Your task to perform on an android device: turn notification dots on Image 0: 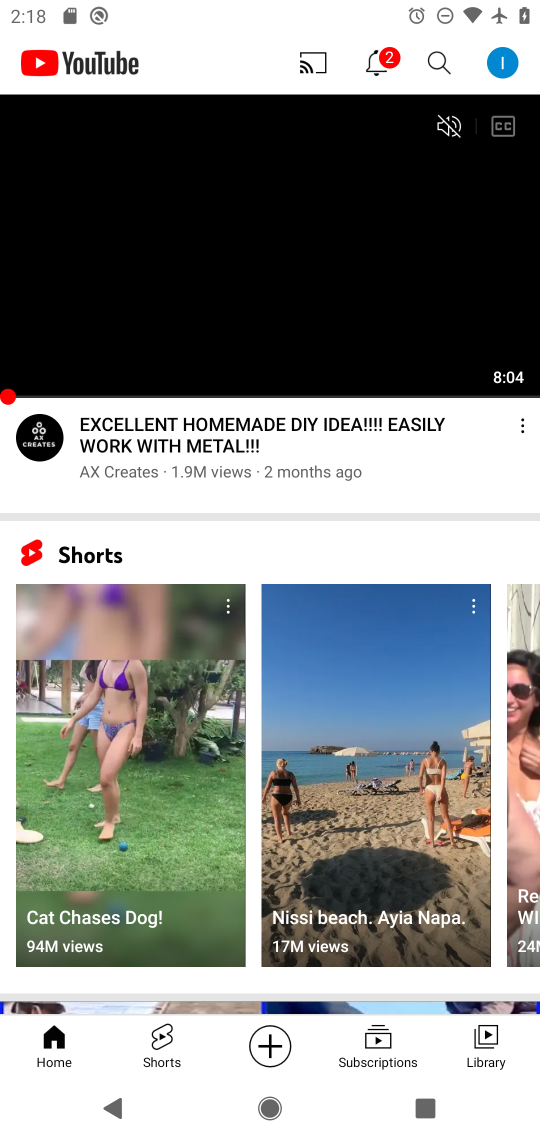
Step 0: press home button
Your task to perform on an android device: turn notification dots on Image 1: 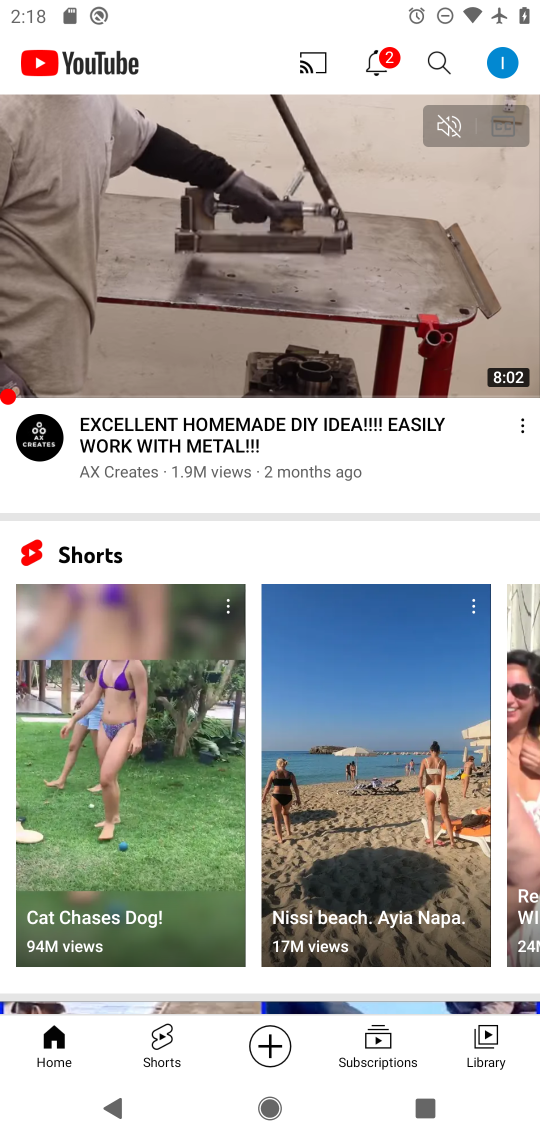
Step 1: press home button
Your task to perform on an android device: turn notification dots on Image 2: 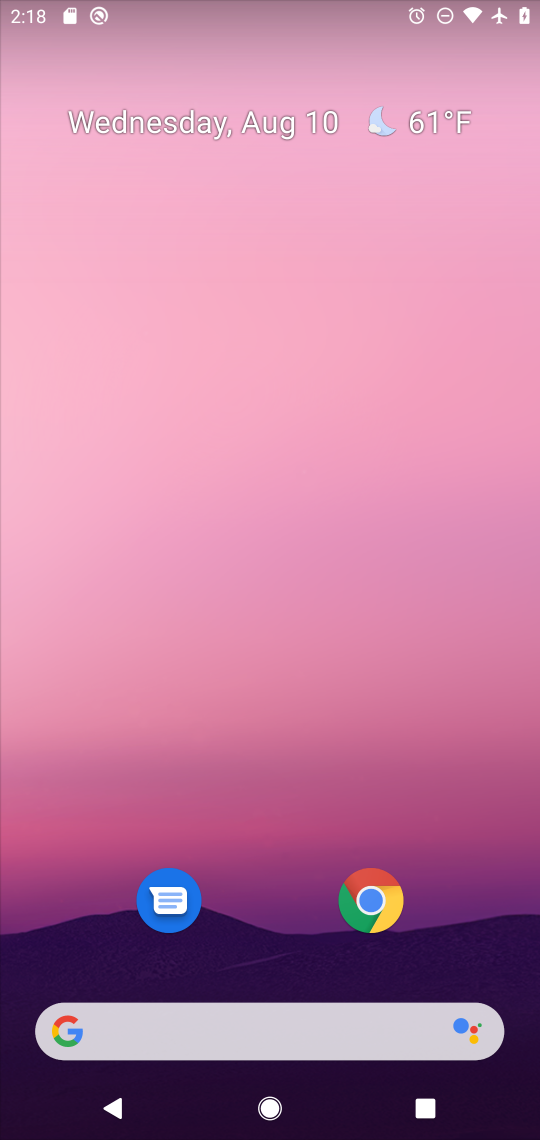
Step 2: drag from (277, 911) to (373, 1)
Your task to perform on an android device: turn notification dots on Image 3: 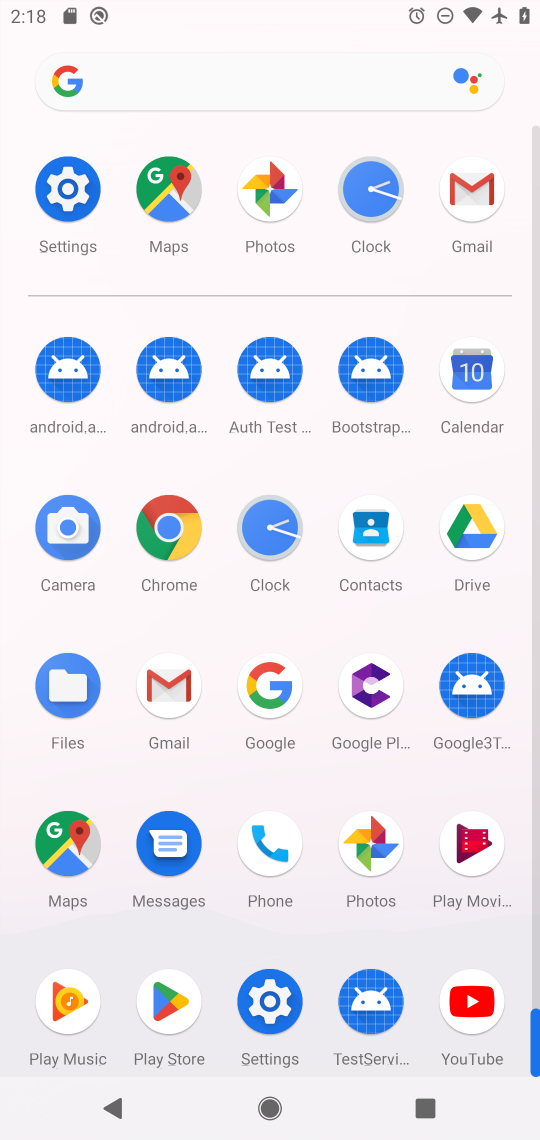
Step 3: click (69, 189)
Your task to perform on an android device: turn notification dots on Image 4: 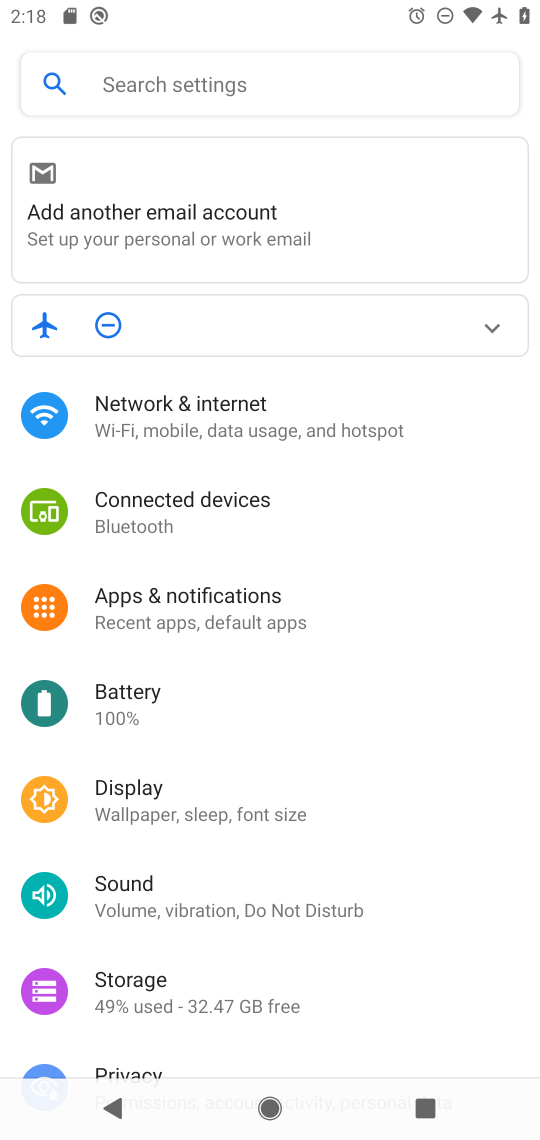
Step 4: click (200, 593)
Your task to perform on an android device: turn notification dots on Image 5: 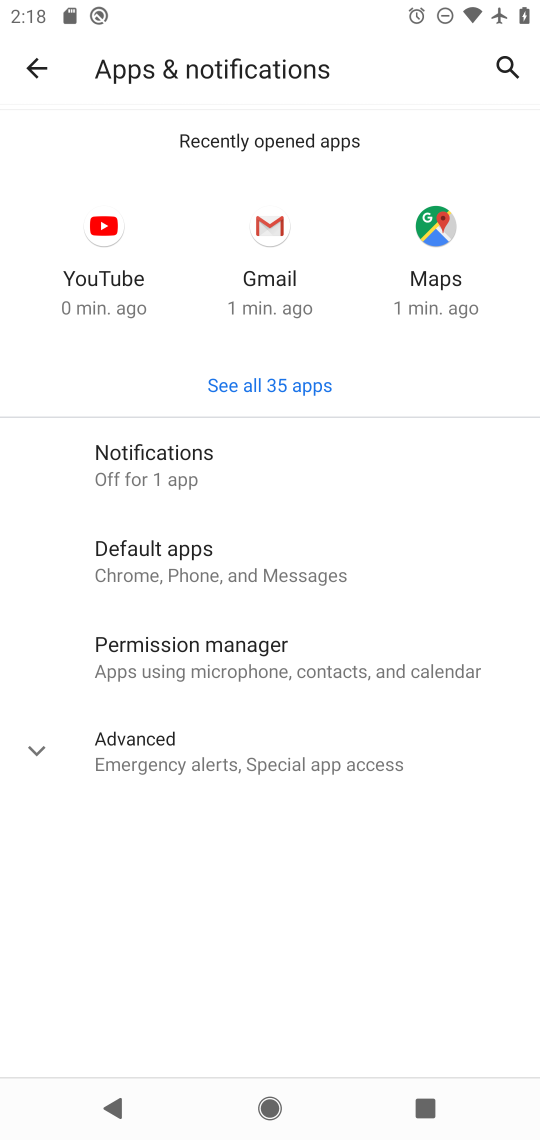
Step 5: click (182, 474)
Your task to perform on an android device: turn notification dots on Image 6: 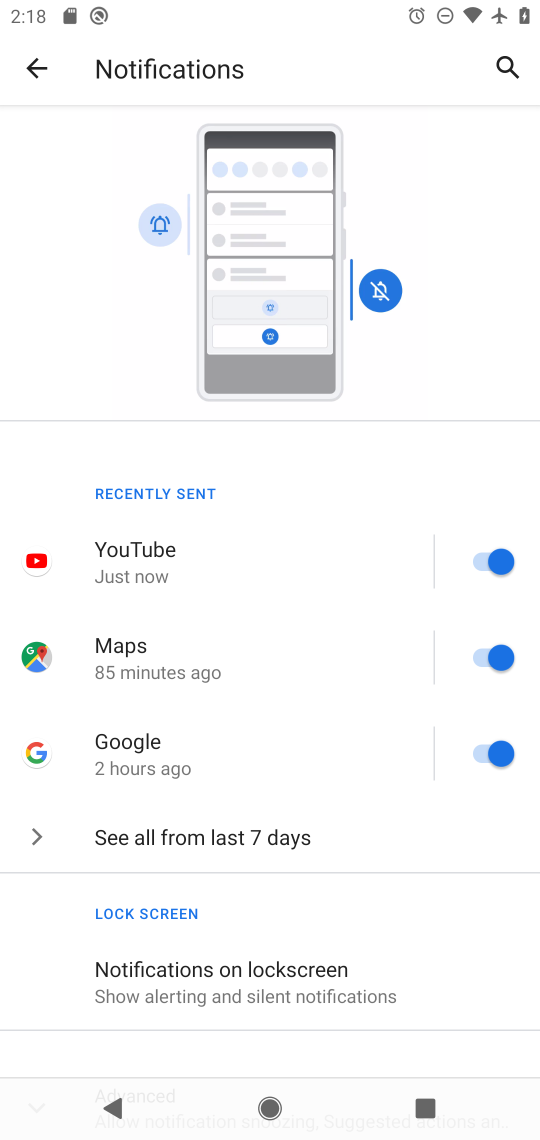
Step 6: drag from (253, 921) to (312, 212)
Your task to perform on an android device: turn notification dots on Image 7: 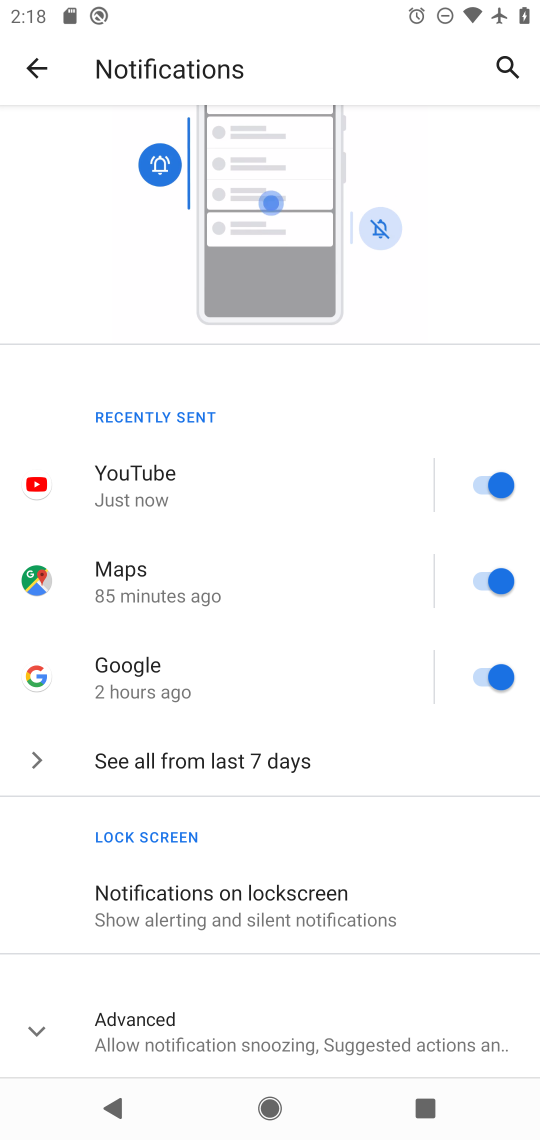
Step 7: click (35, 1023)
Your task to perform on an android device: turn notification dots on Image 8: 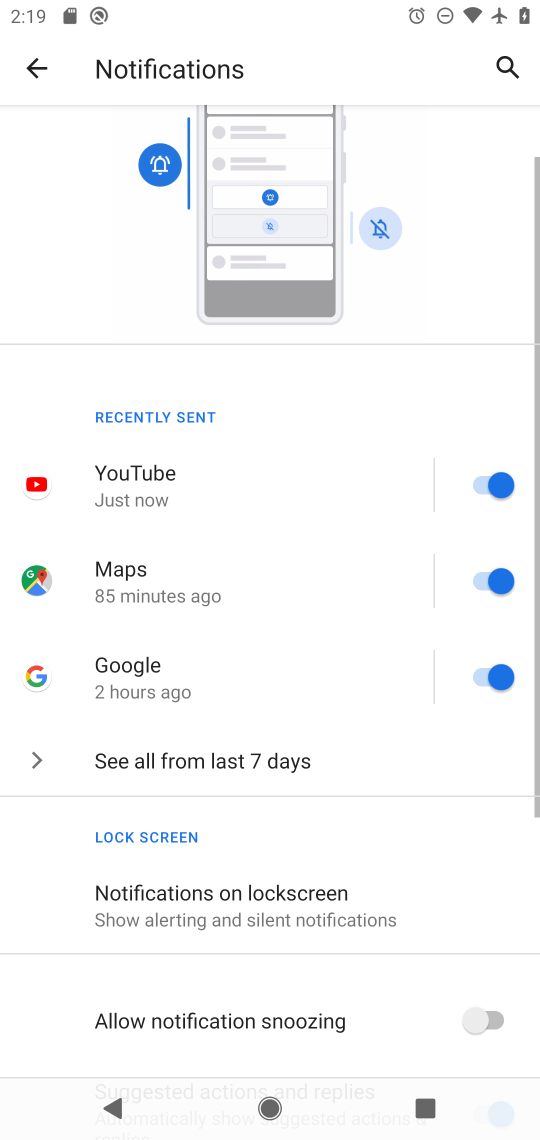
Step 8: task complete